Your task to perform on an android device: clear history in the chrome app Image 0: 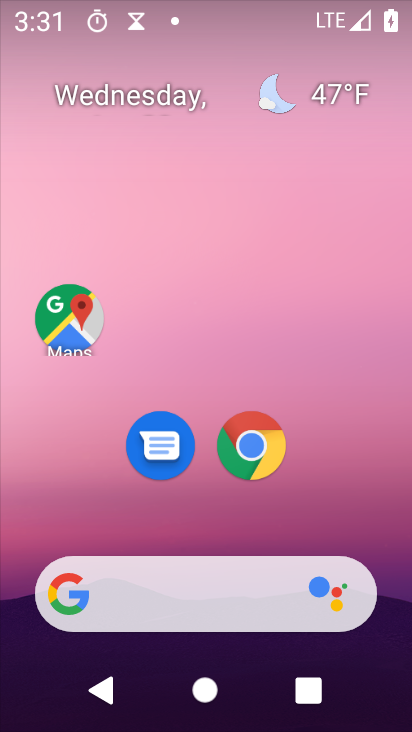
Step 0: click (253, 444)
Your task to perform on an android device: clear history in the chrome app Image 1: 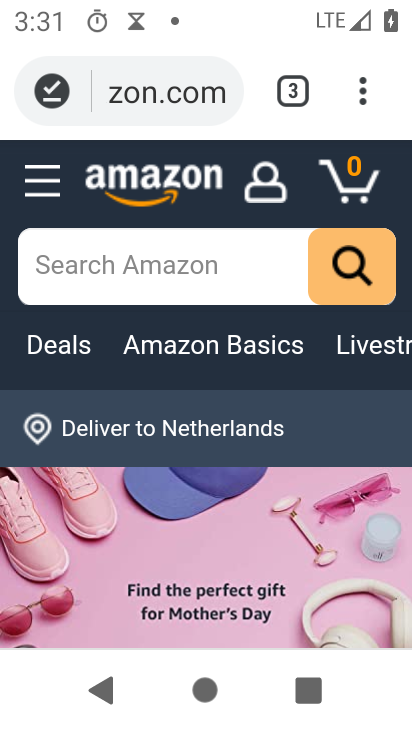
Step 1: click (367, 93)
Your task to perform on an android device: clear history in the chrome app Image 2: 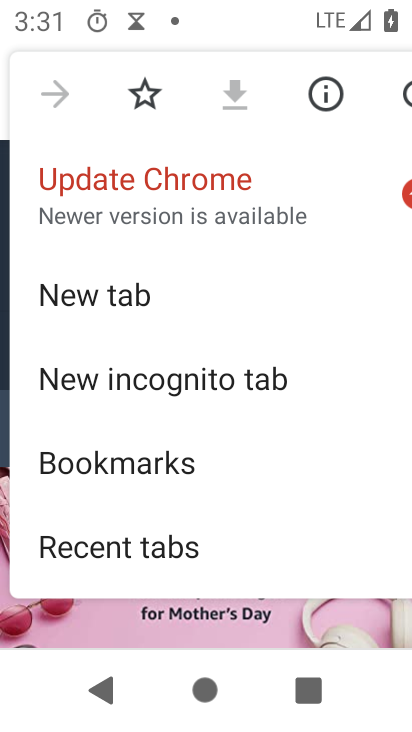
Step 2: drag from (230, 483) to (211, 277)
Your task to perform on an android device: clear history in the chrome app Image 3: 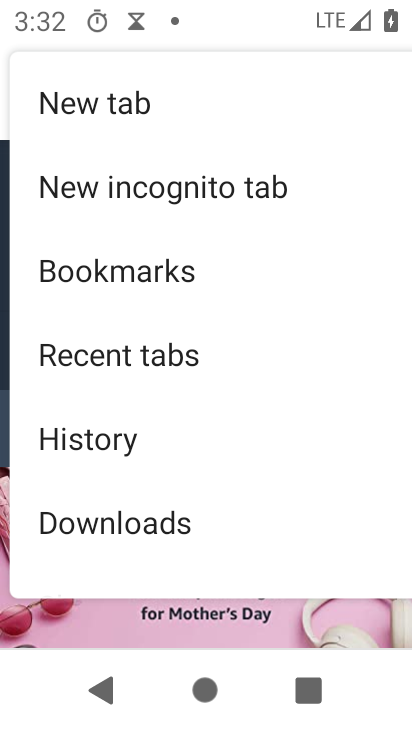
Step 3: click (89, 443)
Your task to perform on an android device: clear history in the chrome app Image 4: 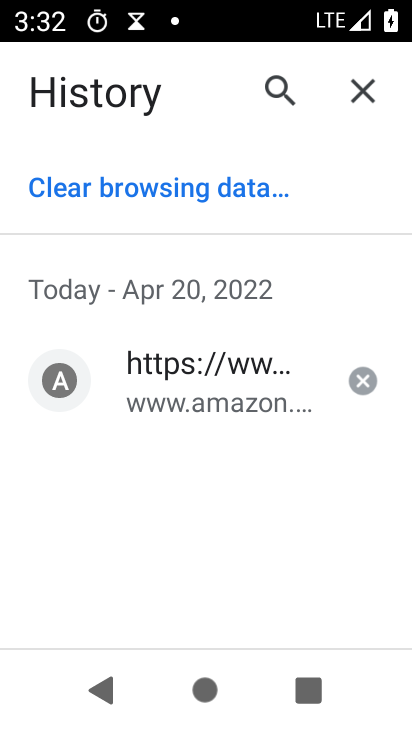
Step 4: click (112, 204)
Your task to perform on an android device: clear history in the chrome app Image 5: 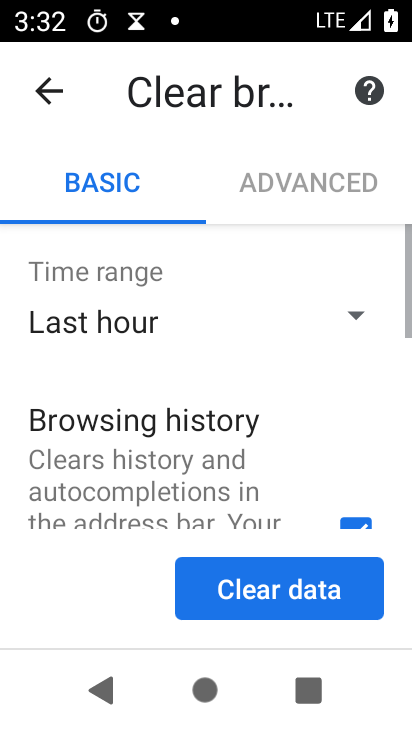
Step 5: drag from (181, 419) to (170, 239)
Your task to perform on an android device: clear history in the chrome app Image 6: 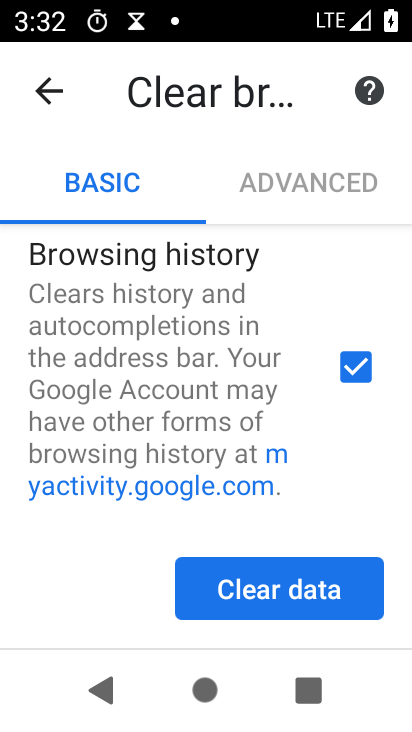
Step 6: drag from (128, 441) to (134, 196)
Your task to perform on an android device: clear history in the chrome app Image 7: 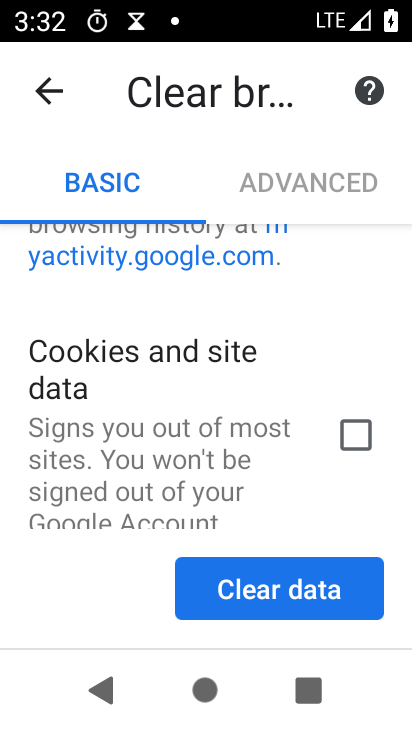
Step 7: drag from (135, 413) to (144, 207)
Your task to perform on an android device: clear history in the chrome app Image 8: 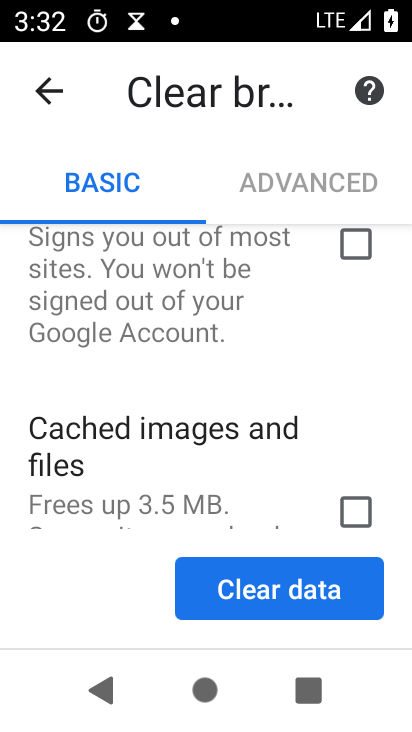
Step 8: click (269, 589)
Your task to perform on an android device: clear history in the chrome app Image 9: 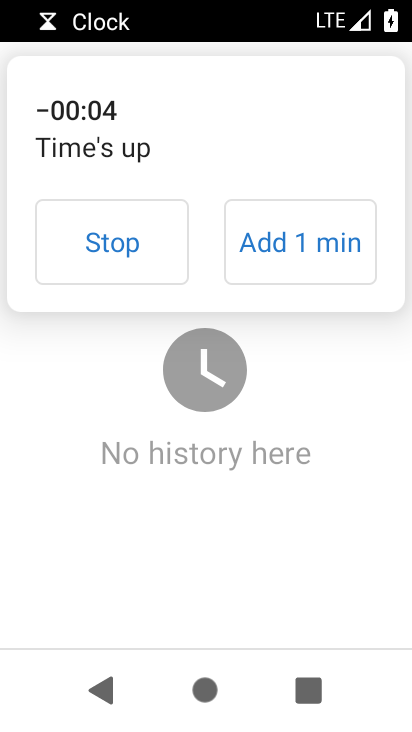
Step 9: task complete